Your task to perform on an android device: Open Maps and search for coffee Image 0: 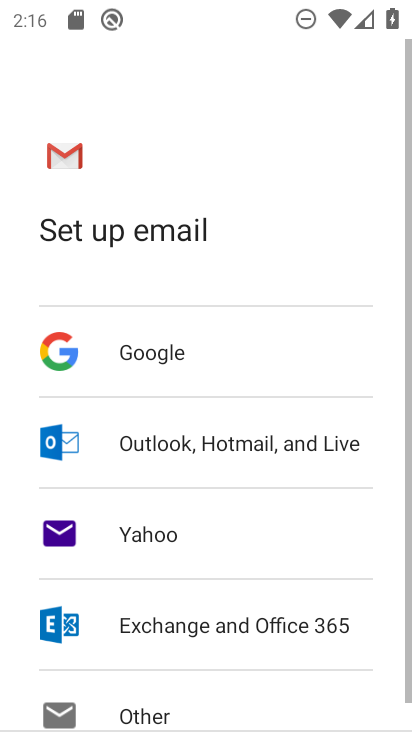
Step 0: press home button
Your task to perform on an android device: Open Maps and search for coffee Image 1: 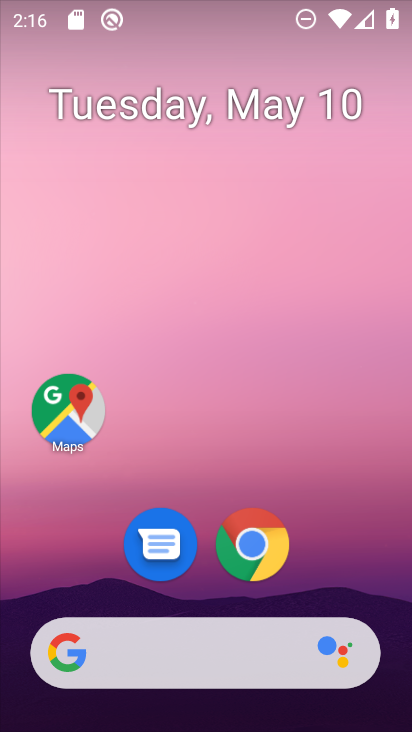
Step 1: drag from (229, 725) to (233, 28)
Your task to perform on an android device: Open Maps and search for coffee Image 2: 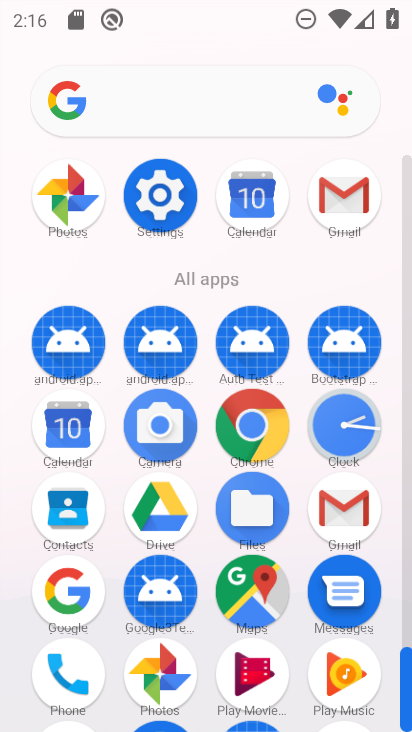
Step 2: click (253, 586)
Your task to perform on an android device: Open Maps and search for coffee Image 3: 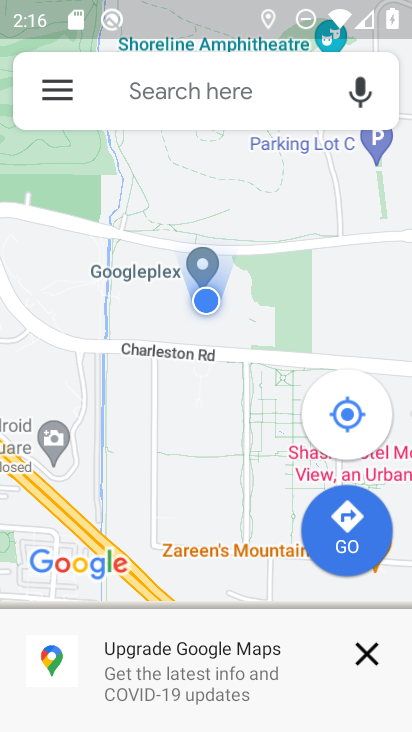
Step 3: click (179, 95)
Your task to perform on an android device: Open Maps and search for coffee Image 4: 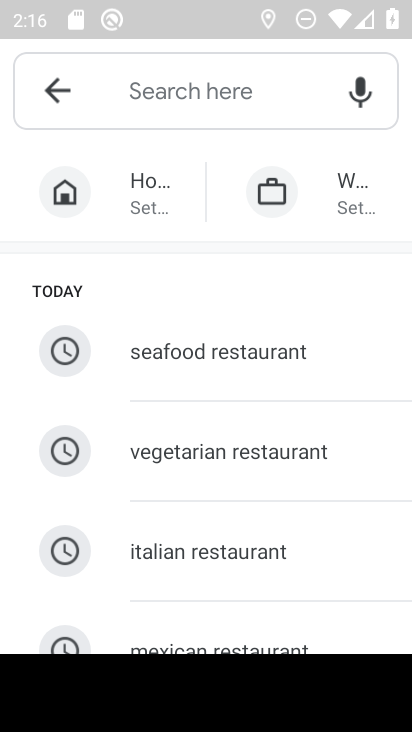
Step 4: type "coffee"
Your task to perform on an android device: Open Maps and search for coffee Image 5: 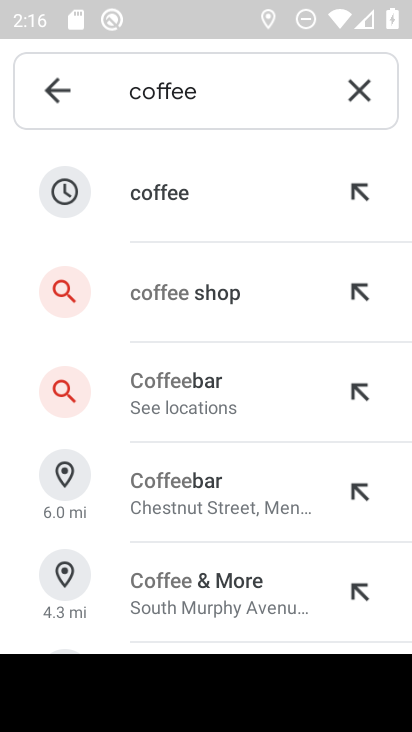
Step 5: click (161, 187)
Your task to perform on an android device: Open Maps and search for coffee Image 6: 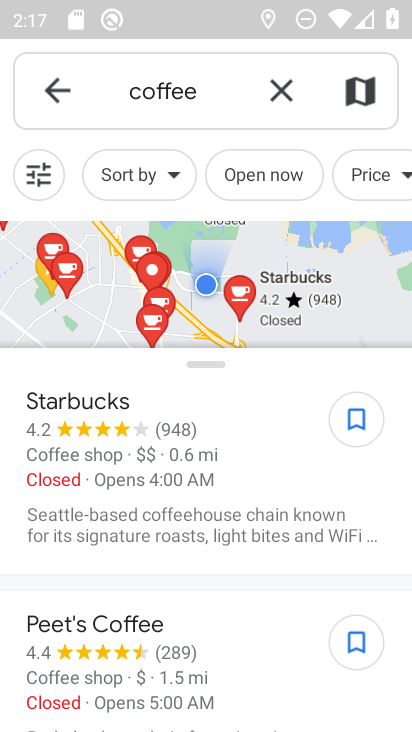
Step 6: task complete